Your task to perform on an android device: turn off airplane mode Image 0: 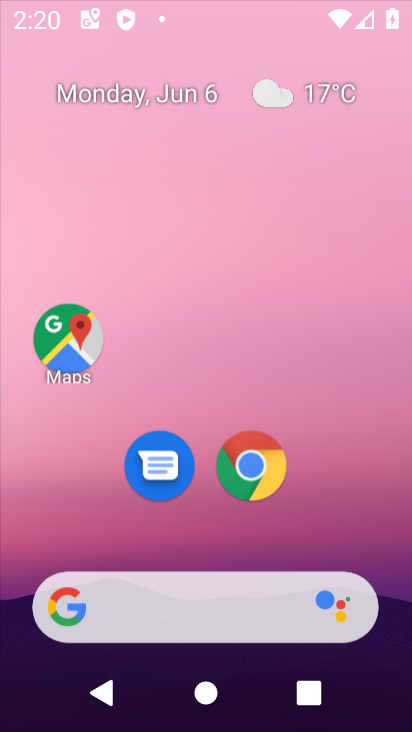
Step 0: press back button
Your task to perform on an android device: turn off airplane mode Image 1: 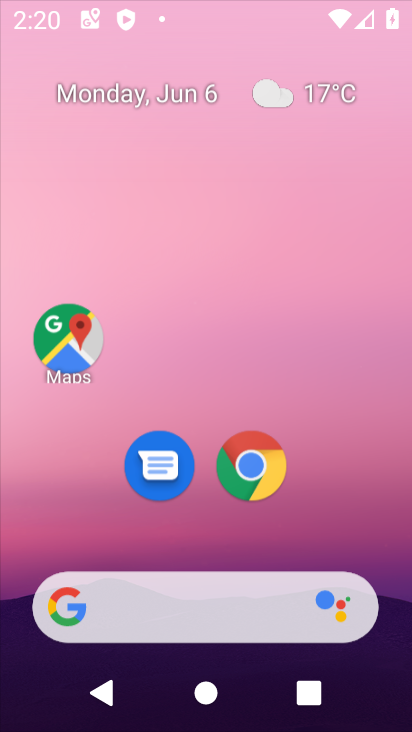
Step 1: click (189, 103)
Your task to perform on an android device: turn off airplane mode Image 2: 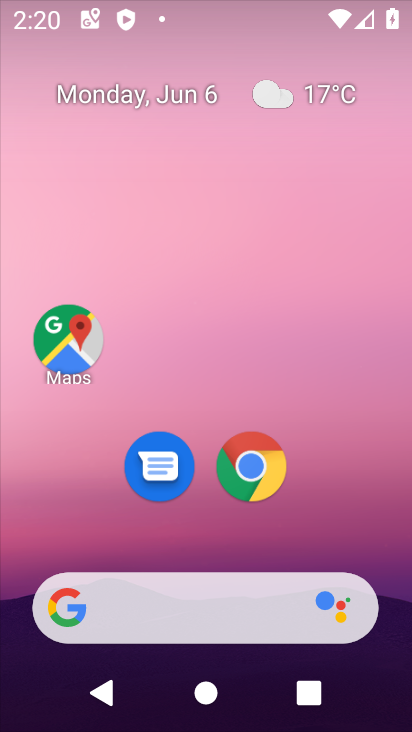
Step 2: drag from (253, 586) to (251, 134)
Your task to perform on an android device: turn off airplane mode Image 3: 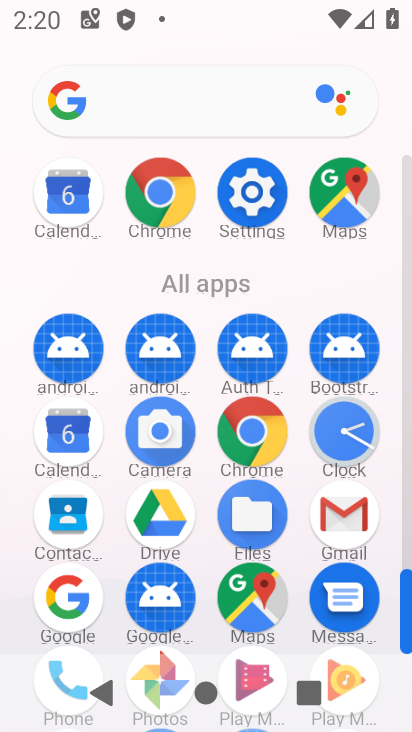
Step 3: click (249, 190)
Your task to perform on an android device: turn off airplane mode Image 4: 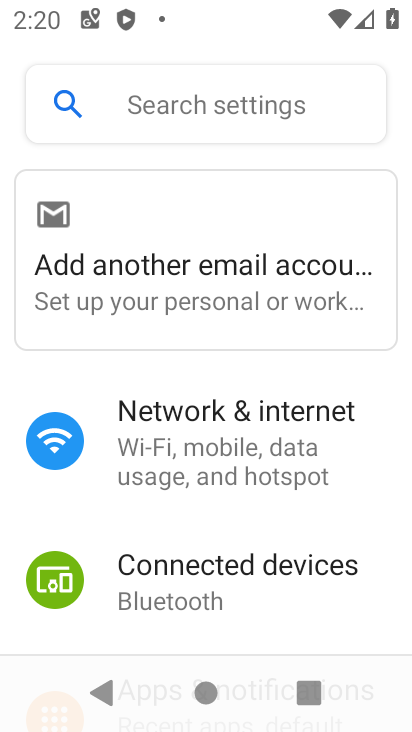
Step 4: press back button
Your task to perform on an android device: turn off airplane mode Image 5: 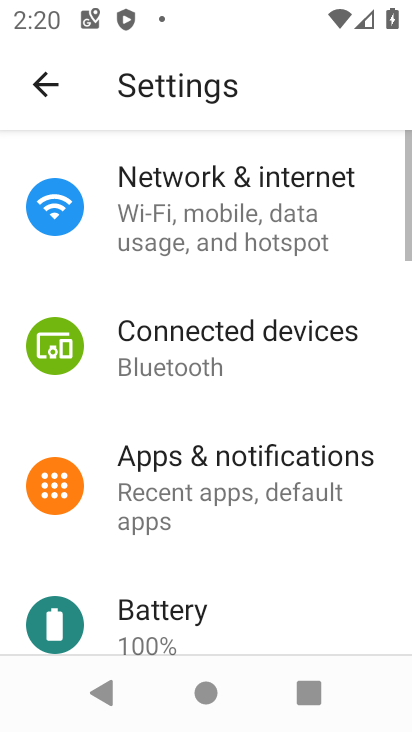
Step 5: click (34, 78)
Your task to perform on an android device: turn off airplane mode Image 6: 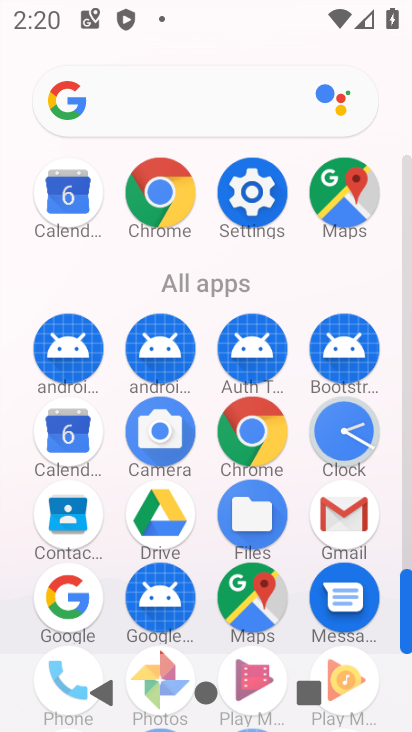
Step 6: click (246, 205)
Your task to perform on an android device: turn off airplane mode Image 7: 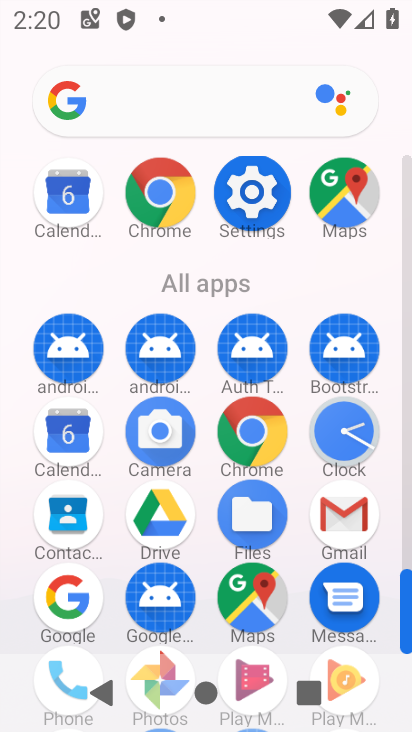
Step 7: click (247, 204)
Your task to perform on an android device: turn off airplane mode Image 8: 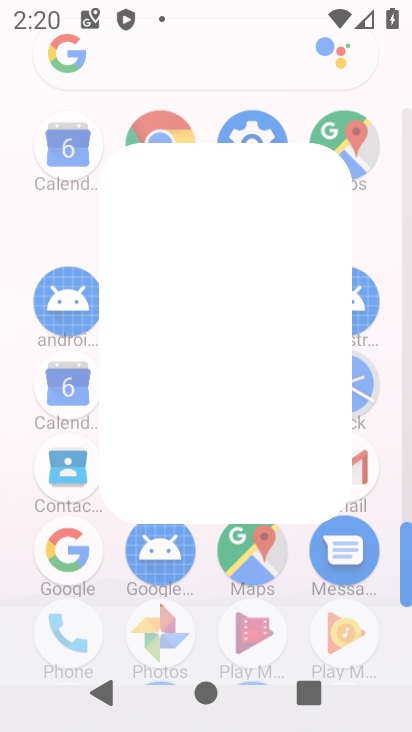
Step 8: click (247, 204)
Your task to perform on an android device: turn off airplane mode Image 9: 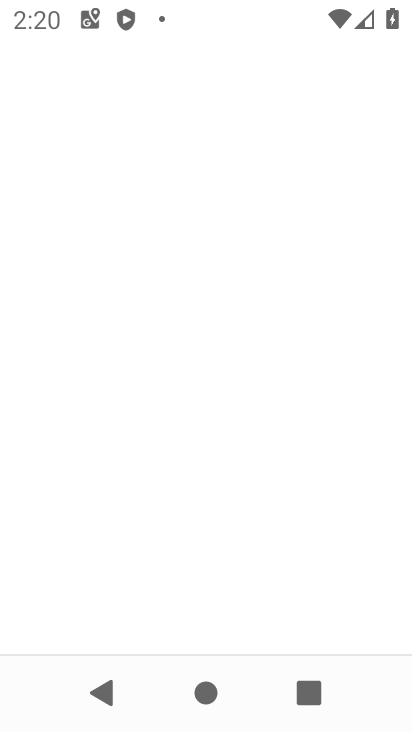
Step 9: click (247, 204)
Your task to perform on an android device: turn off airplane mode Image 10: 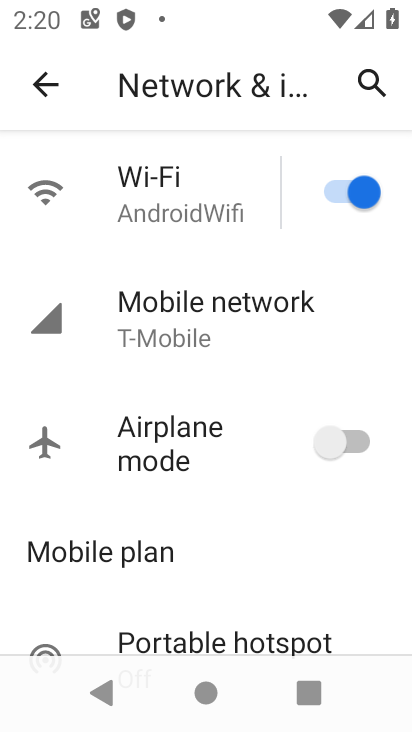
Step 10: task complete